Your task to perform on an android device: turn off priority inbox in the gmail app Image 0: 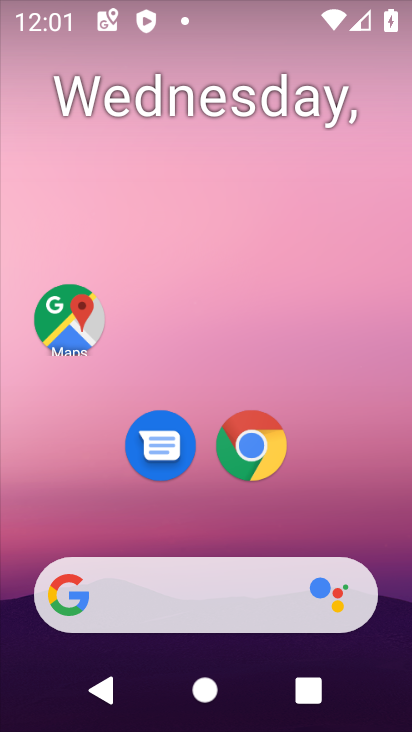
Step 0: drag from (353, 539) to (301, 133)
Your task to perform on an android device: turn off priority inbox in the gmail app Image 1: 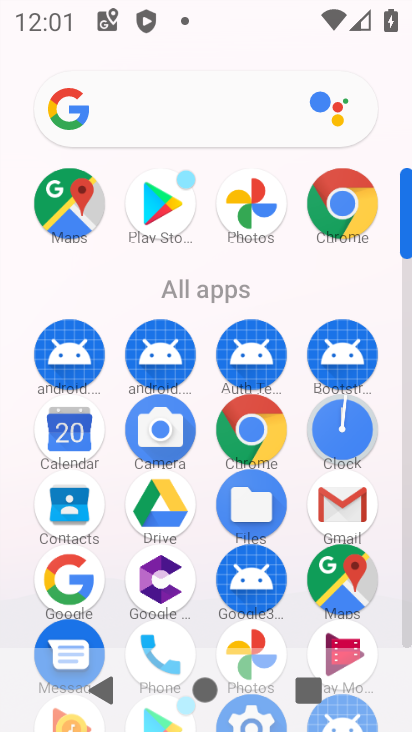
Step 1: click (342, 508)
Your task to perform on an android device: turn off priority inbox in the gmail app Image 2: 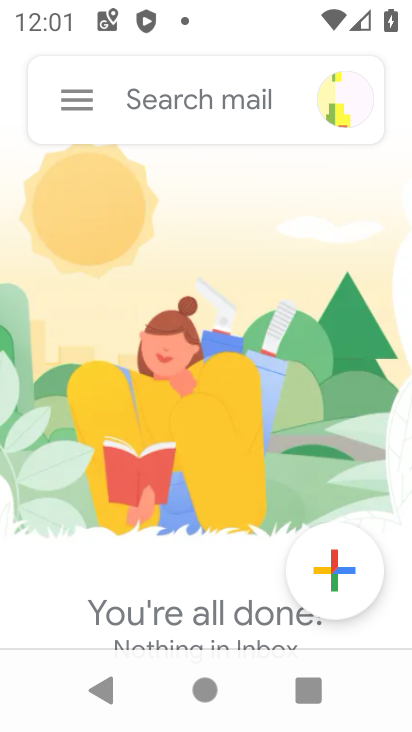
Step 2: click (89, 91)
Your task to perform on an android device: turn off priority inbox in the gmail app Image 3: 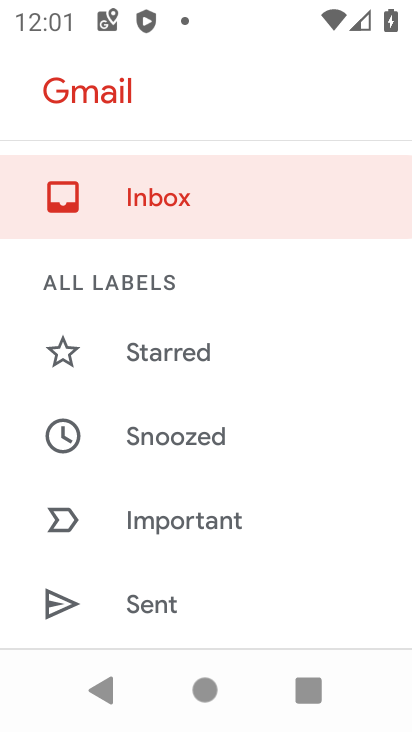
Step 3: drag from (196, 500) to (277, 50)
Your task to perform on an android device: turn off priority inbox in the gmail app Image 4: 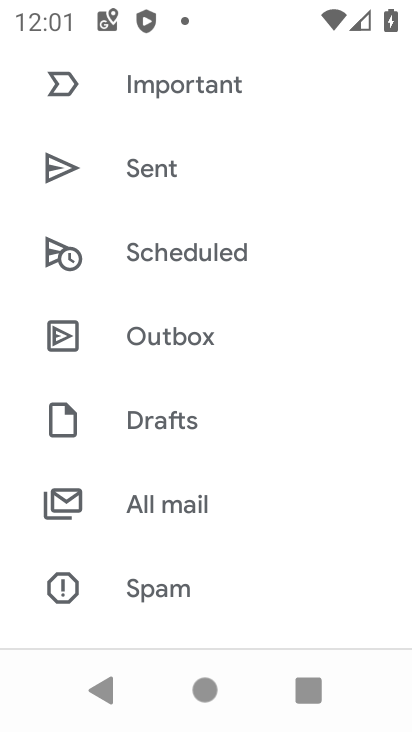
Step 4: drag from (180, 571) to (193, 76)
Your task to perform on an android device: turn off priority inbox in the gmail app Image 5: 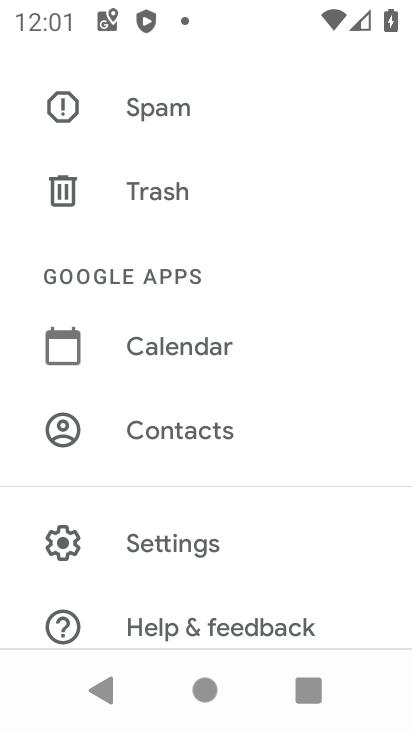
Step 5: click (165, 538)
Your task to perform on an android device: turn off priority inbox in the gmail app Image 6: 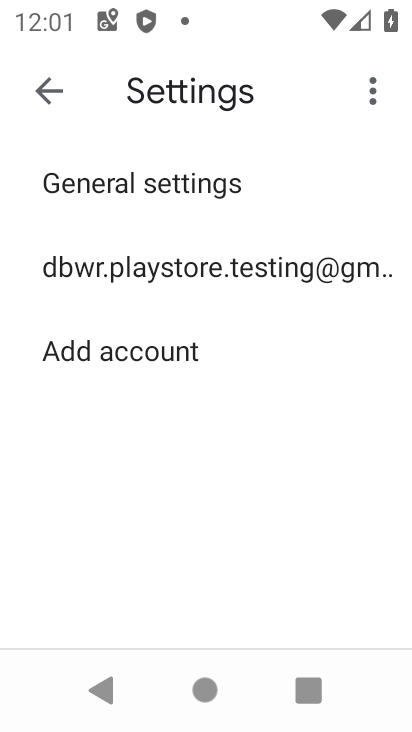
Step 6: click (204, 276)
Your task to perform on an android device: turn off priority inbox in the gmail app Image 7: 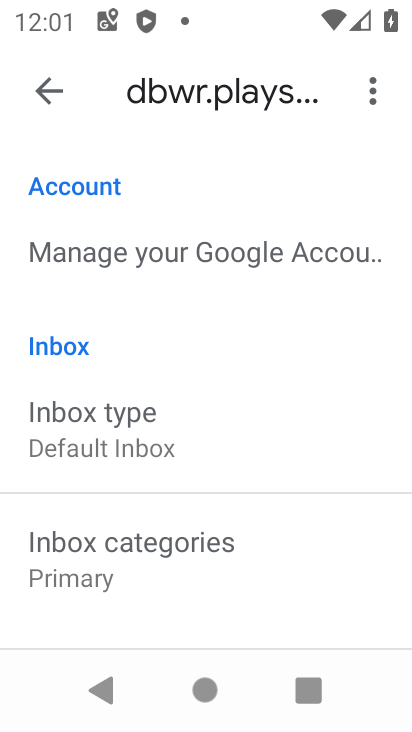
Step 7: click (114, 452)
Your task to perform on an android device: turn off priority inbox in the gmail app Image 8: 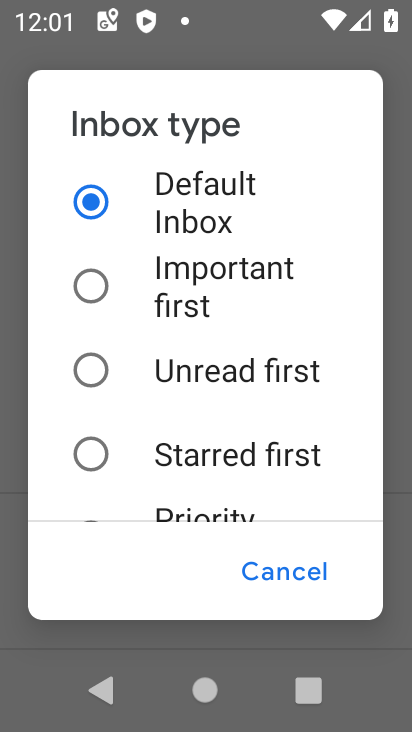
Step 8: task complete